Your task to perform on an android device: Open the calendar and show me this week's events Image 0: 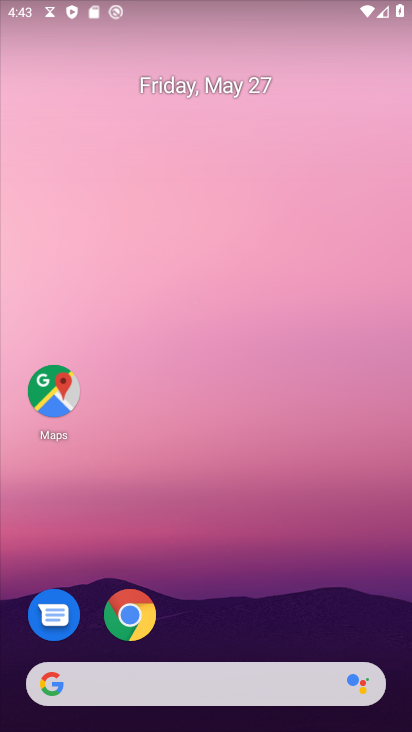
Step 0: drag from (304, 518) to (201, 35)
Your task to perform on an android device: Open the calendar and show me this week's events Image 1: 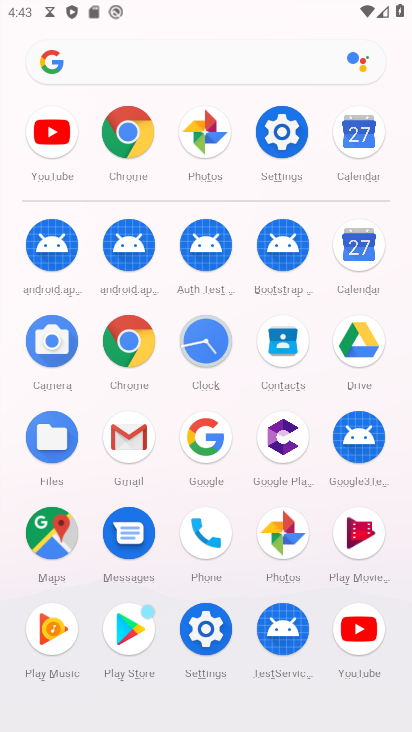
Step 1: click (361, 247)
Your task to perform on an android device: Open the calendar and show me this week's events Image 2: 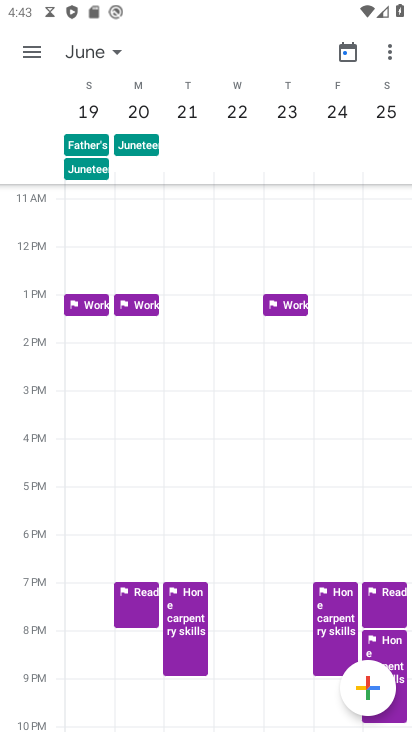
Step 2: click (91, 54)
Your task to perform on an android device: Open the calendar and show me this week's events Image 3: 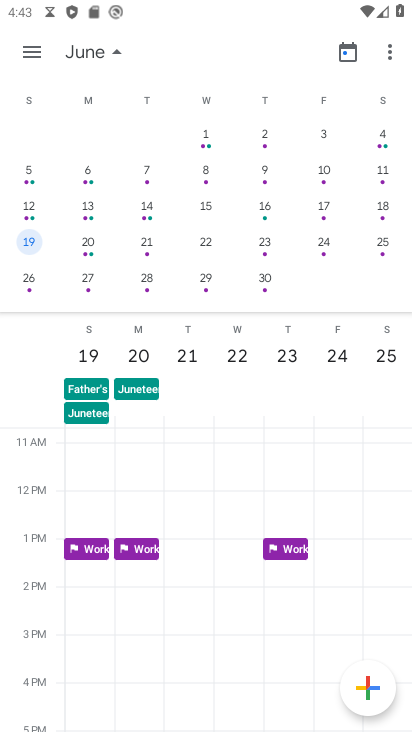
Step 3: drag from (223, 241) to (402, 249)
Your task to perform on an android device: Open the calendar and show me this week's events Image 4: 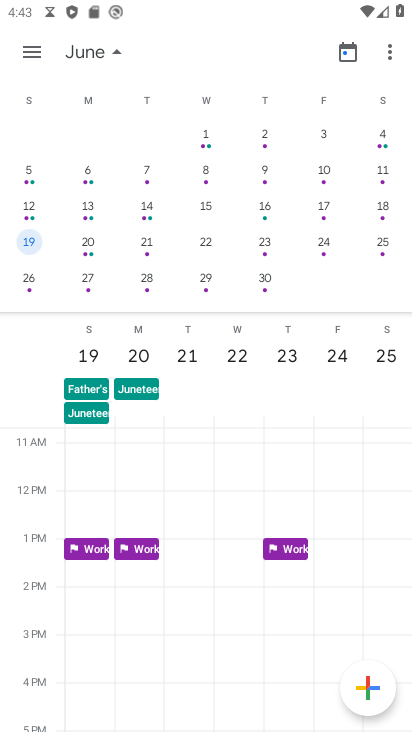
Step 4: drag from (53, 213) to (411, 237)
Your task to perform on an android device: Open the calendar and show me this week's events Image 5: 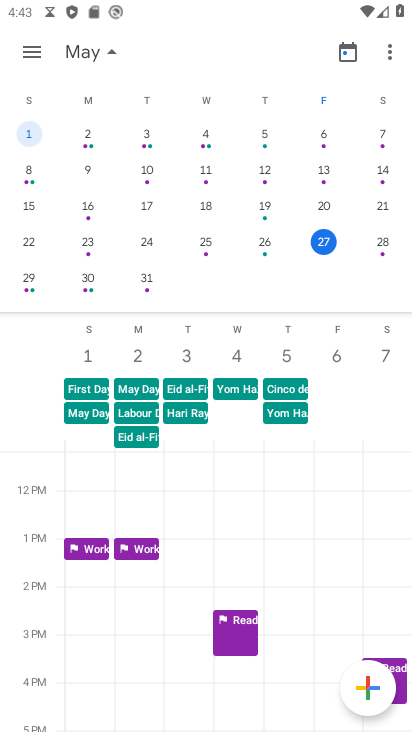
Step 5: click (35, 242)
Your task to perform on an android device: Open the calendar and show me this week's events Image 6: 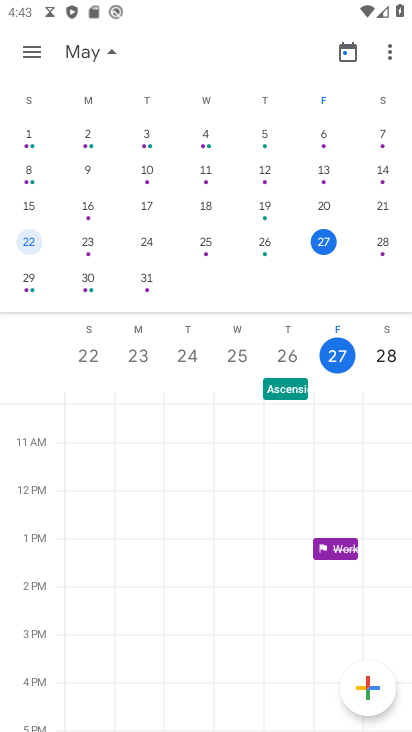
Step 6: task complete